Your task to perform on an android device: turn on improve location accuracy Image 0: 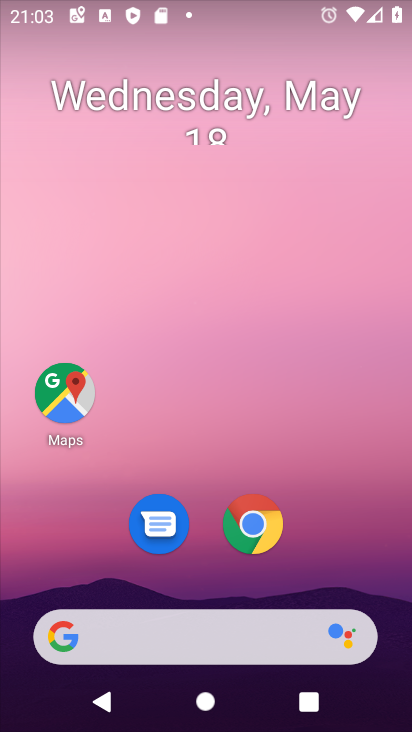
Step 0: drag from (213, 450) to (203, 35)
Your task to perform on an android device: turn on improve location accuracy Image 1: 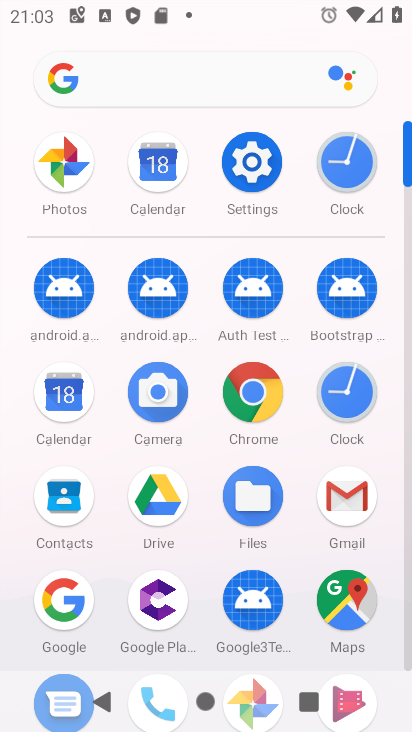
Step 1: click (247, 165)
Your task to perform on an android device: turn on improve location accuracy Image 2: 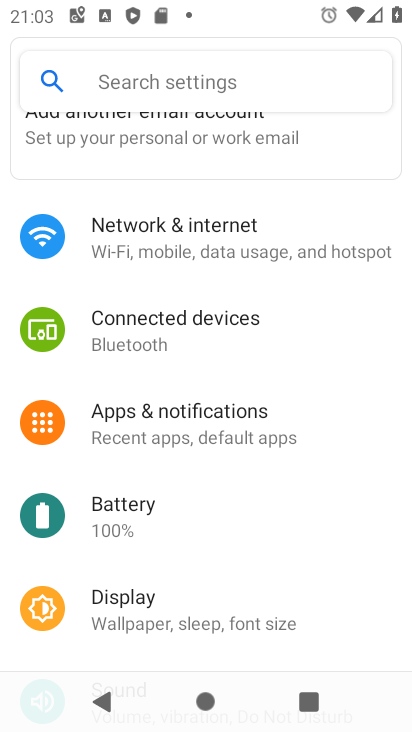
Step 2: drag from (180, 545) to (197, 244)
Your task to perform on an android device: turn on improve location accuracy Image 3: 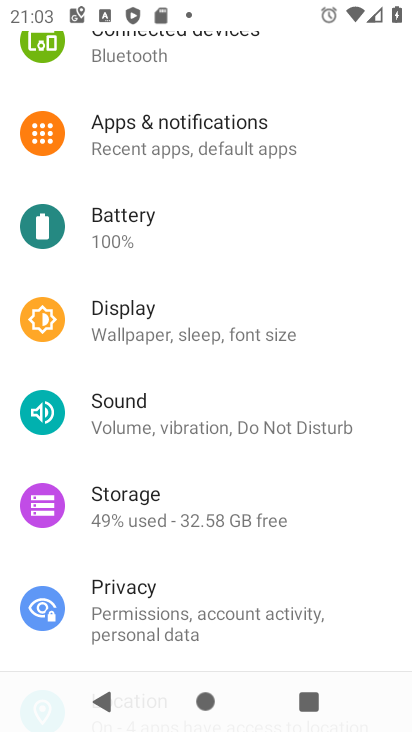
Step 3: drag from (185, 498) to (216, 127)
Your task to perform on an android device: turn on improve location accuracy Image 4: 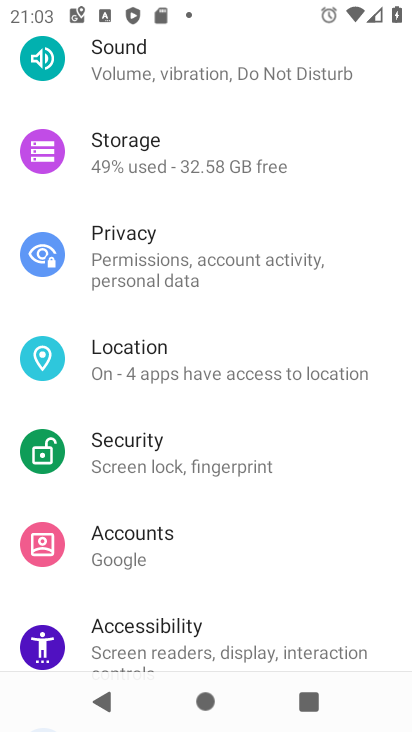
Step 4: click (225, 369)
Your task to perform on an android device: turn on improve location accuracy Image 5: 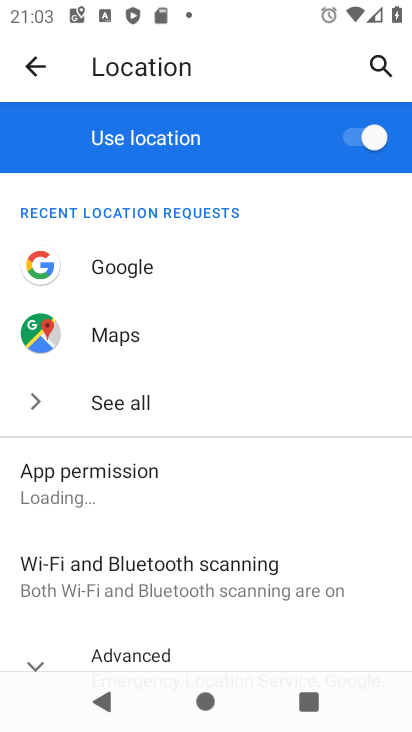
Step 5: drag from (181, 518) to (203, 353)
Your task to perform on an android device: turn on improve location accuracy Image 6: 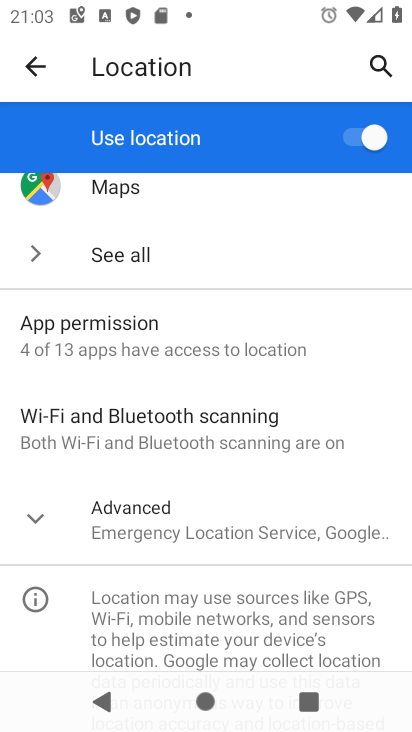
Step 6: click (39, 517)
Your task to perform on an android device: turn on improve location accuracy Image 7: 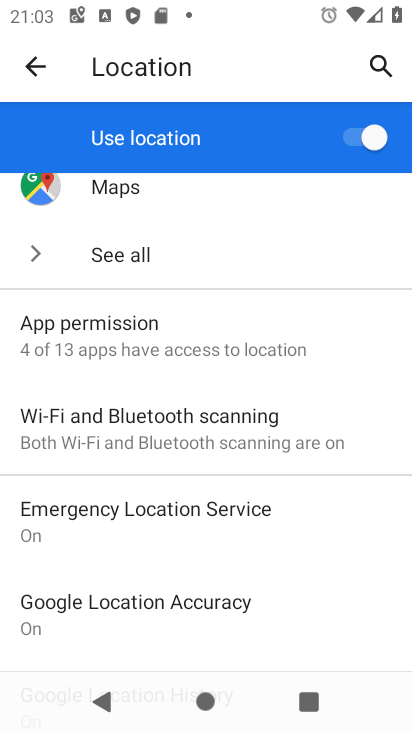
Step 7: task complete